Your task to perform on an android device: Go to location settings Image 0: 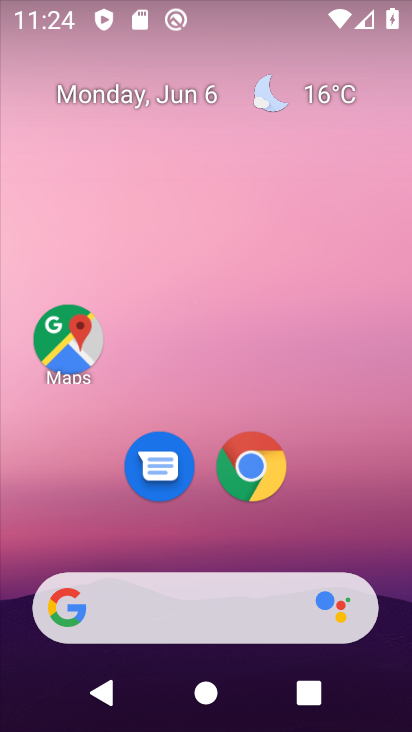
Step 0: drag from (345, 515) to (318, 22)
Your task to perform on an android device: Go to location settings Image 1: 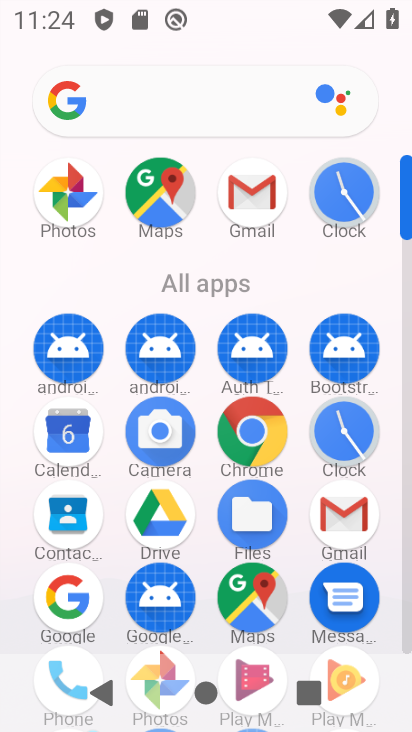
Step 1: drag from (292, 559) to (312, 155)
Your task to perform on an android device: Go to location settings Image 2: 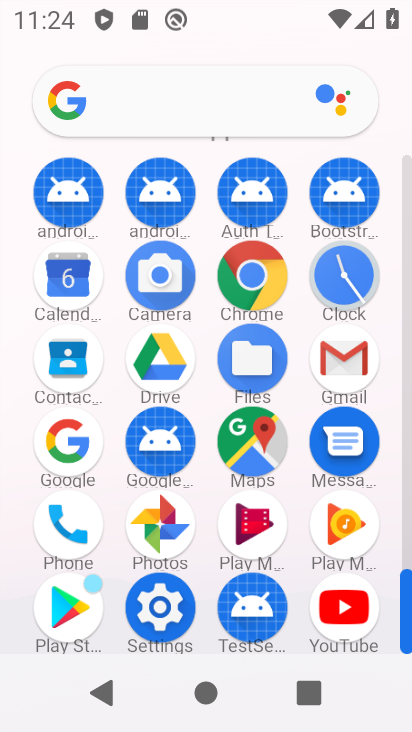
Step 2: click (163, 605)
Your task to perform on an android device: Go to location settings Image 3: 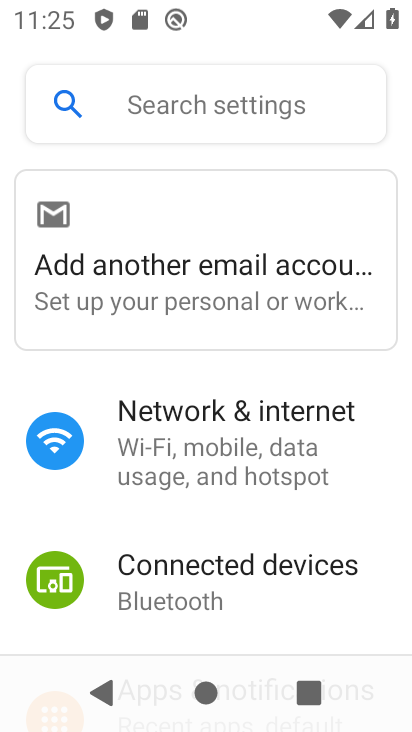
Step 3: drag from (185, 600) to (237, 182)
Your task to perform on an android device: Go to location settings Image 4: 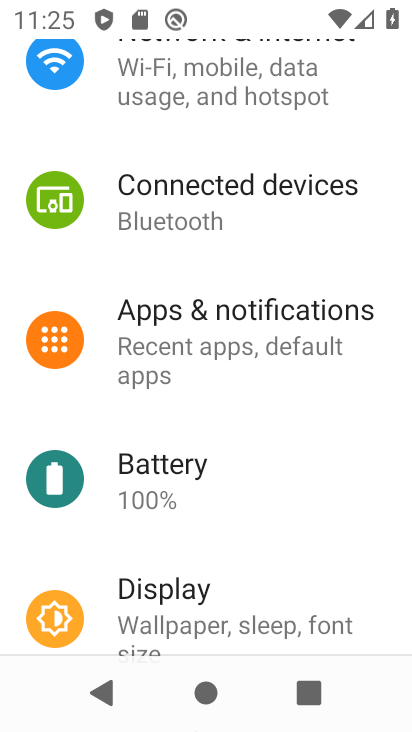
Step 4: drag from (240, 588) to (254, 223)
Your task to perform on an android device: Go to location settings Image 5: 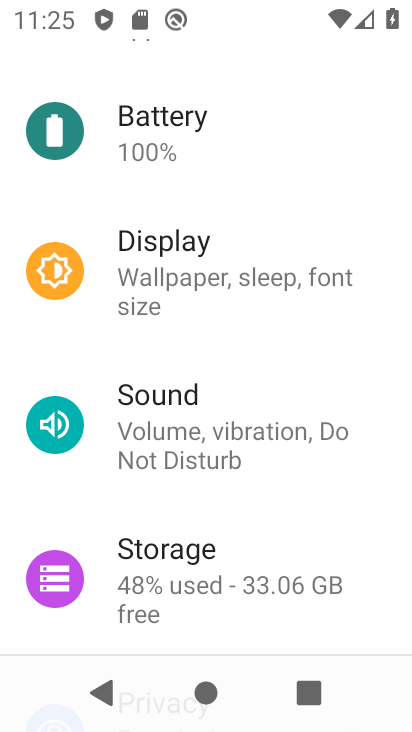
Step 5: drag from (205, 586) to (312, 246)
Your task to perform on an android device: Go to location settings Image 6: 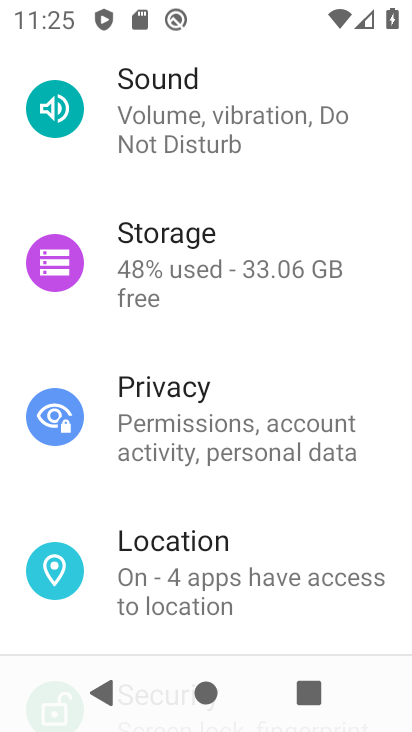
Step 6: click (222, 610)
Your task to perform on an android device: Go to location settings Image 7: 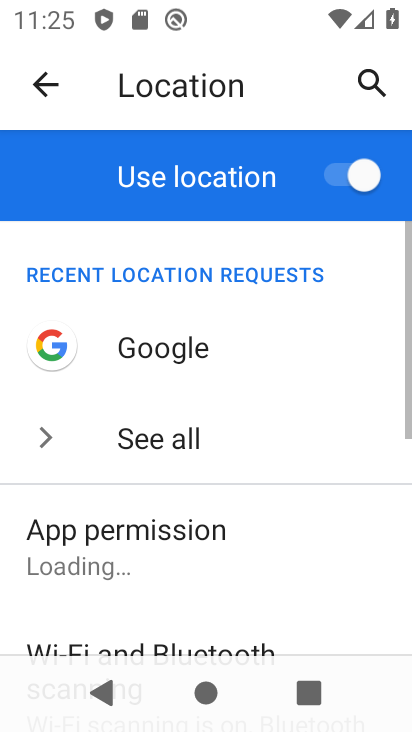
Step 7: task complete